Your task to perform on an android device: see tabs open on other devices in the chrome app Image 0: 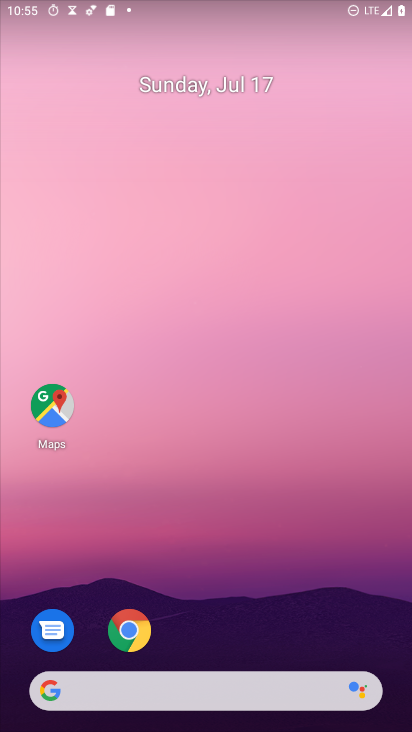
Step 0: drag from (284, 640) to (155, 0)
Your task to perform on an android device: see tabs open on other devices in the chrome app Image 1: 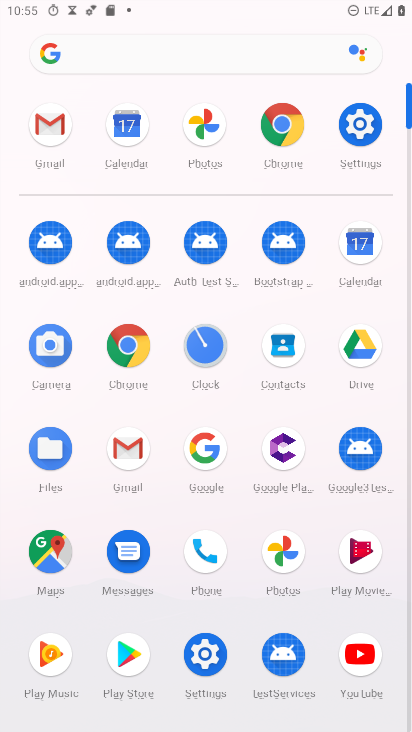
Step 1: click (141, 346)
Your task to perform on an android device: see tabs open on other devices in the chrome app Image 2: 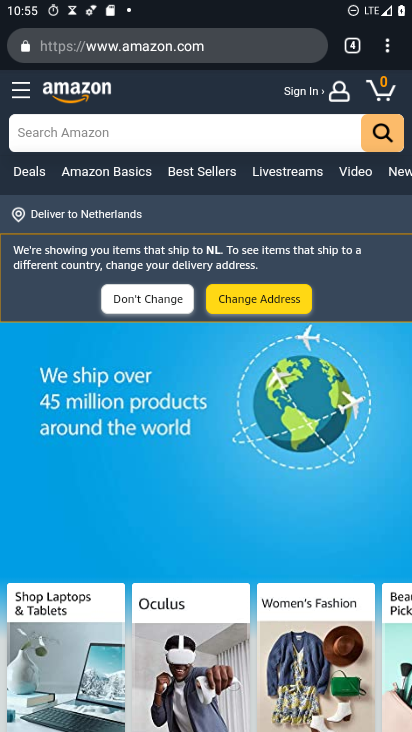
Step 2: task complete